Your task to perform on an android device: Open the calendar app, open the side menu, and click the "Day" option Image 0: 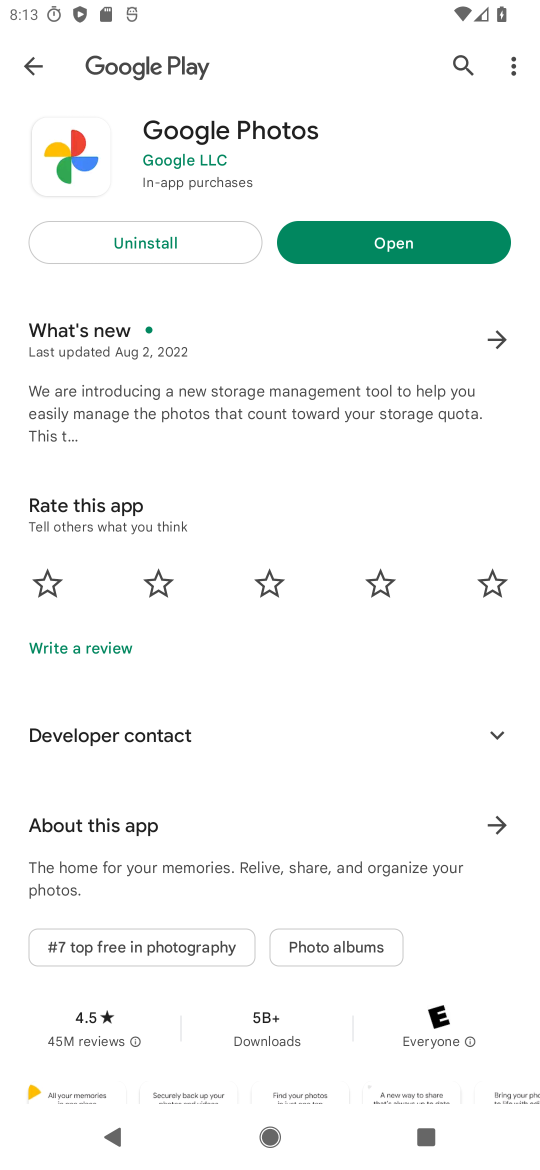
Step 0: press home button
Your task to perform on an android device: Open the calendar app, open the side menu, and click the "Day" option Image 1: 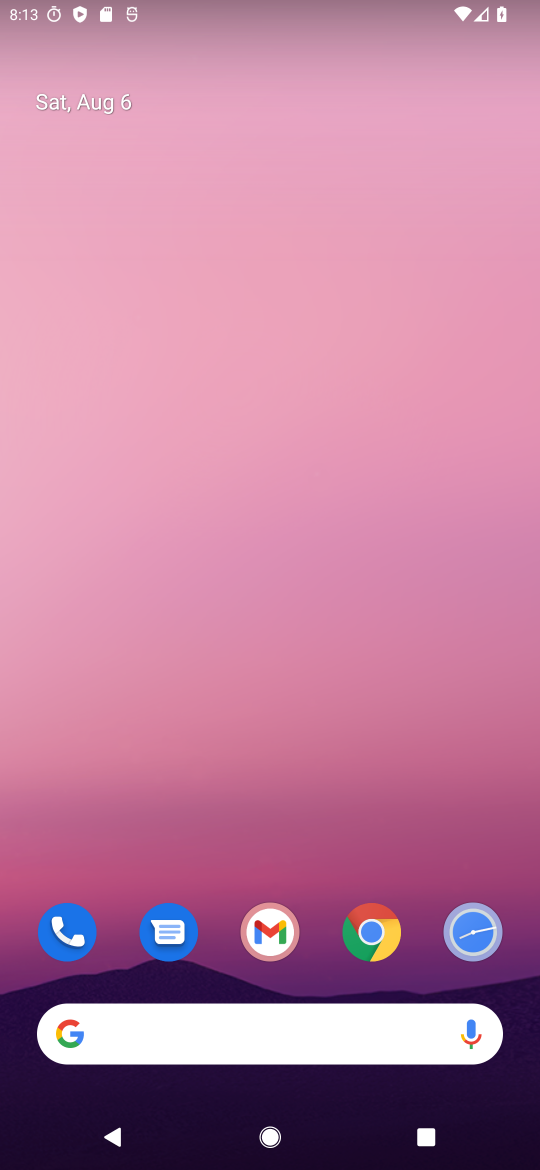
Step 1: drag from (263, 1014) to (252, 200)
Your task to perform on an android device: Open the calendar app, open the side menu, and click the "Day" option Image 2: 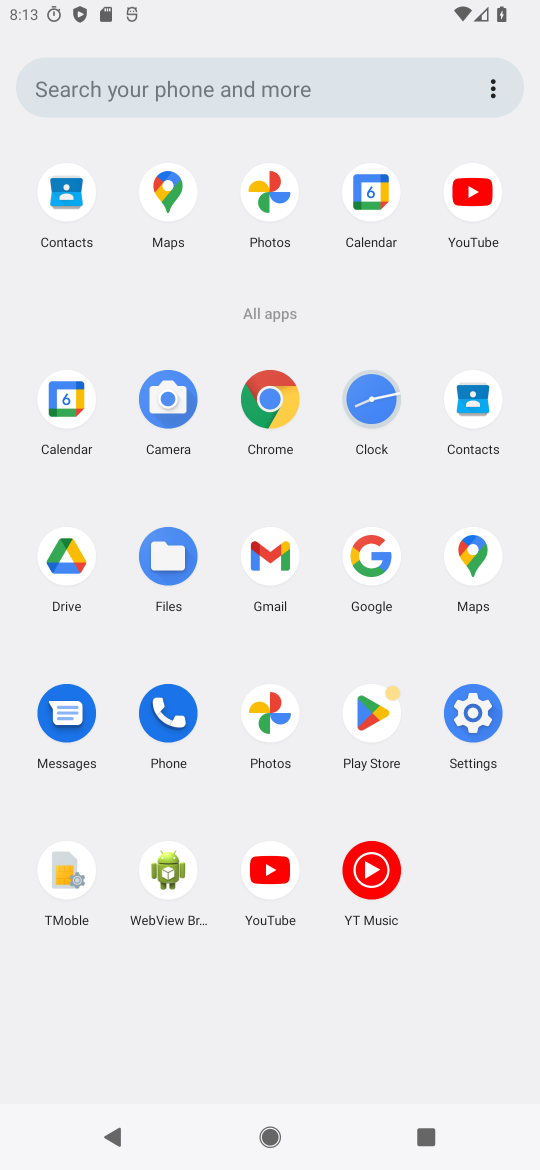
Step 2: click (371, 193)
Your task to perform on an android device: Open the calendar app, open the side menu, and click the "Day" option Image 3: 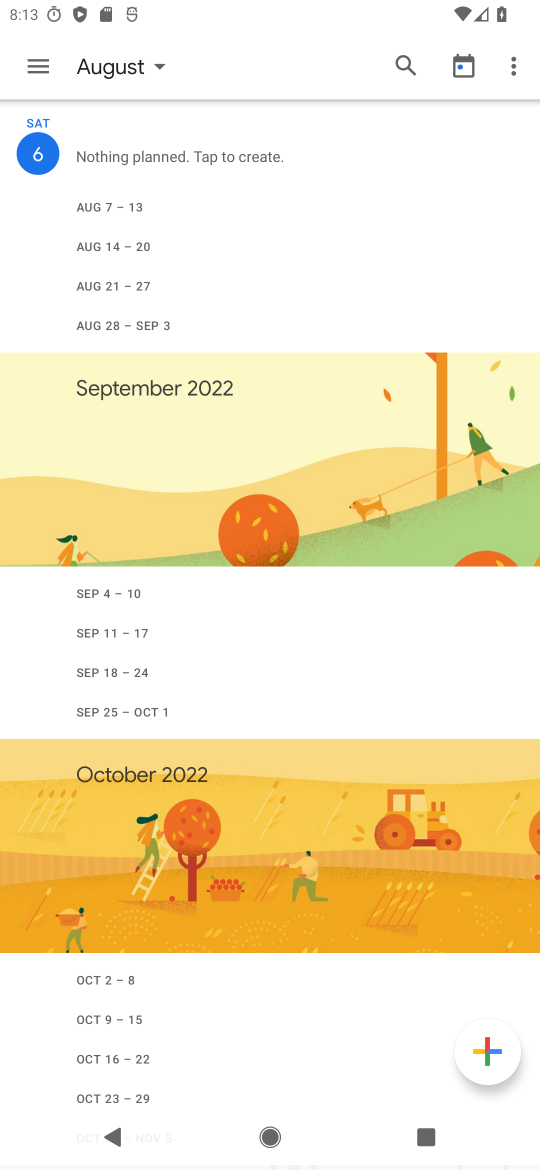
Step 3: click (42, 54)
Your task to perform on an android device: Open the calendar app, open the side menu, and click the "Day" option Image 4: 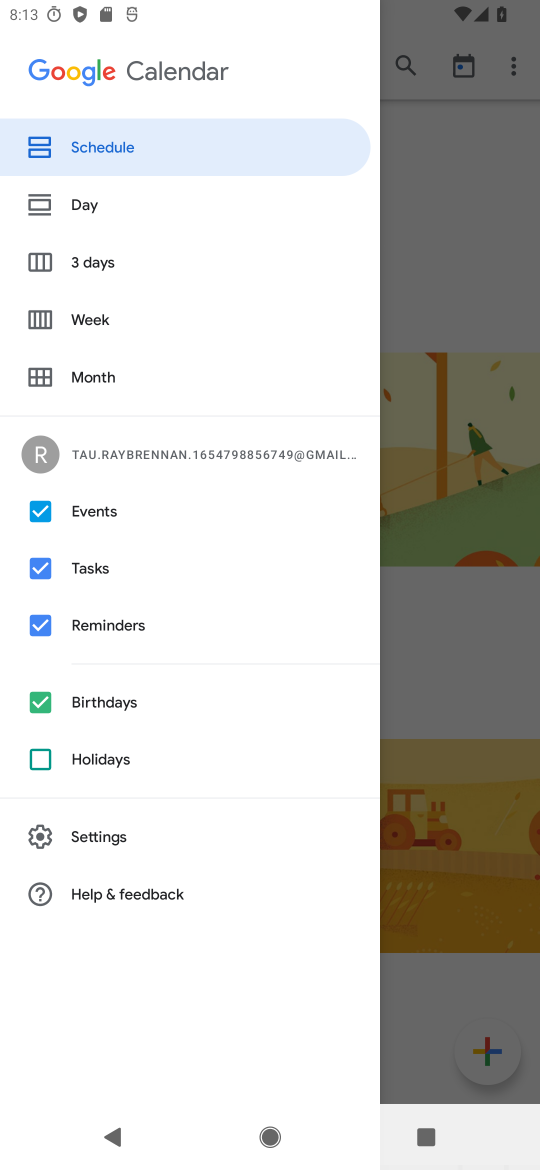
Step 4: click (82, 203)
Your task to perform on an android device: Open the calendar app, open the side menu, and click the "Day" option Image 5: 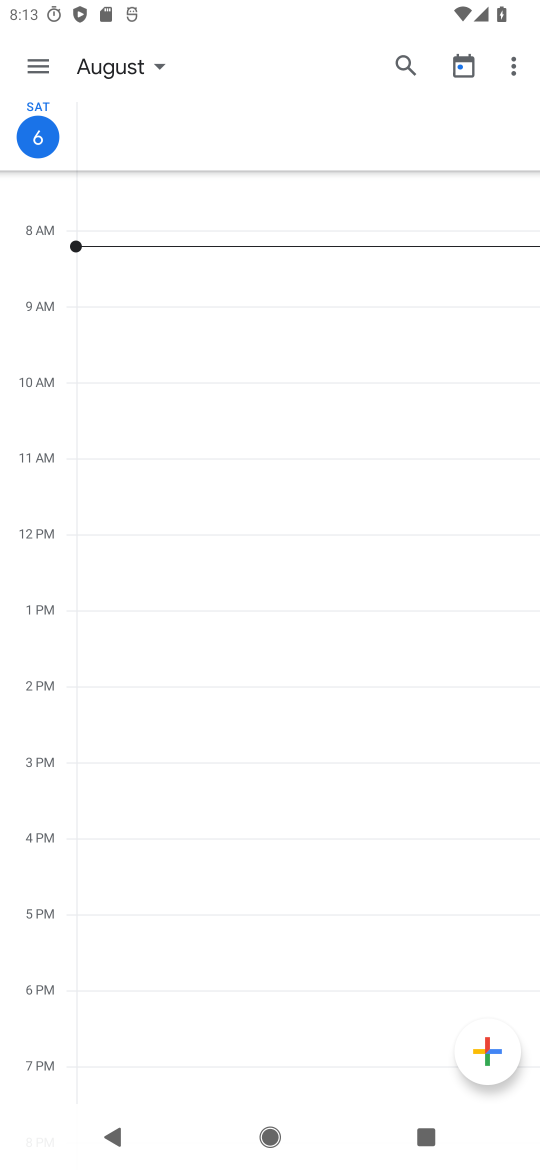
Step 5: task complete